Your task to perform on an android device: open a bookmark in the chrome app Image 0: 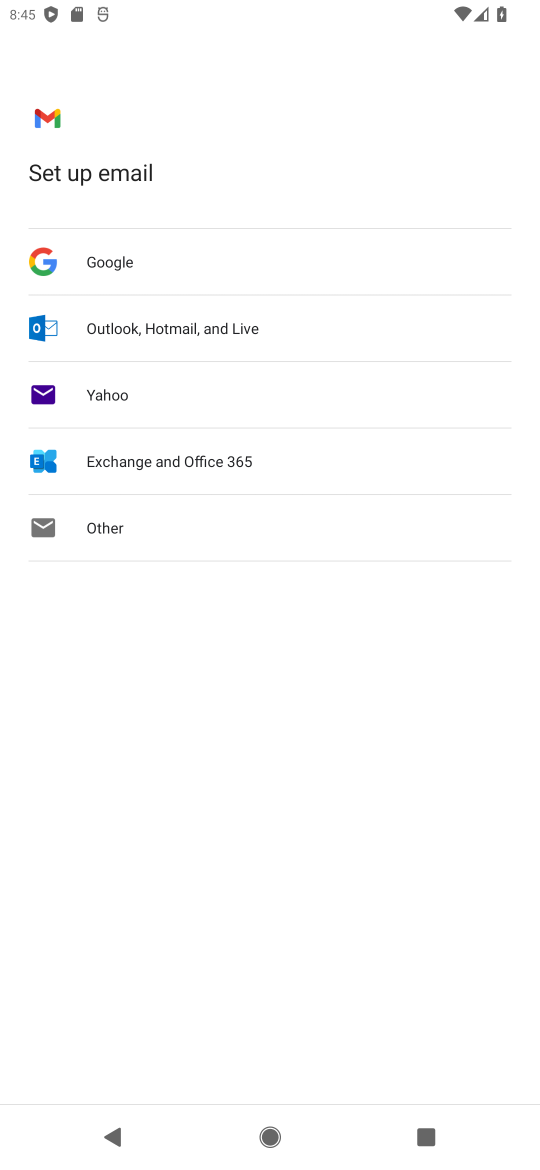
Step 0: press home button
Your task to perform on an android device: open a bookmark in the chrome app Image 1: 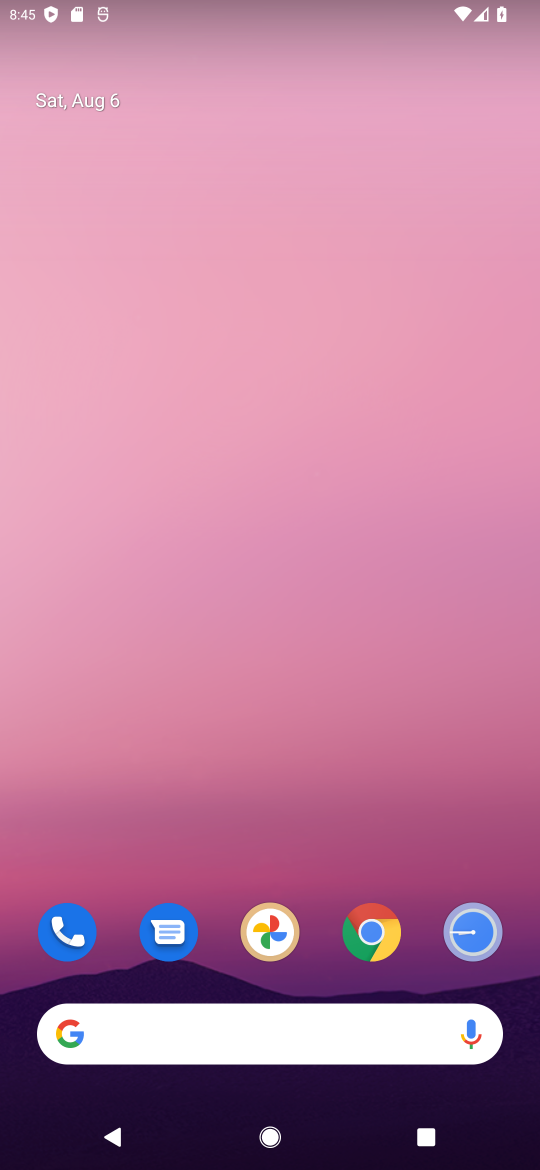
Step 1: click (373, 935)
Your task to perform on an android device: open a bookmark in the chrome app Image 2: 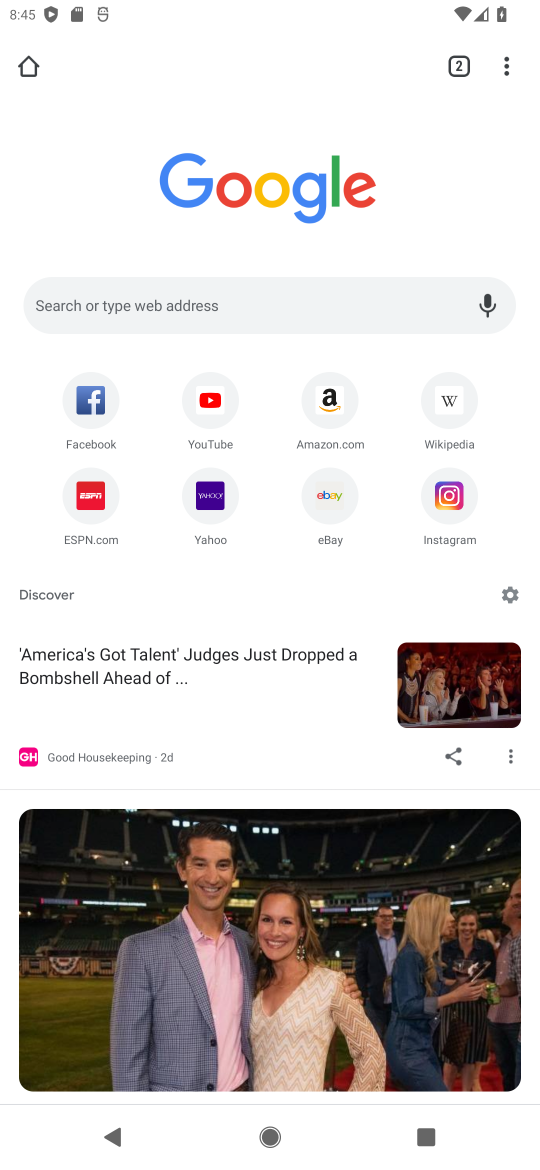
Step 2: click (512, 68)
Your task to perform on an android device: open a bookmark in the chrome app Image 3: 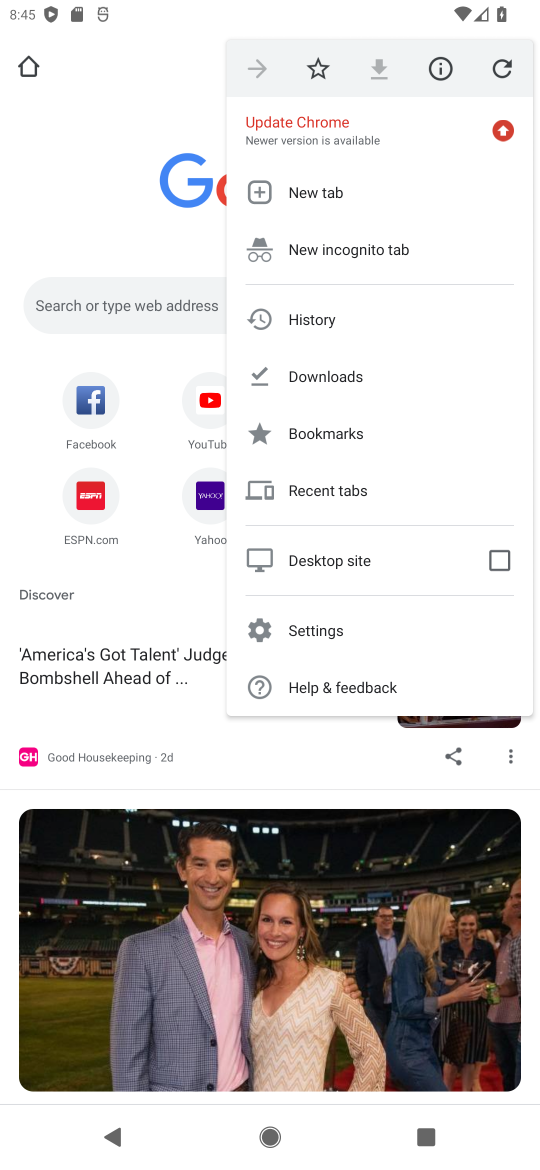
Step 3: click (317, 434)
Your task to perform on an android device: open a bookmark in the chrome app Image 4: 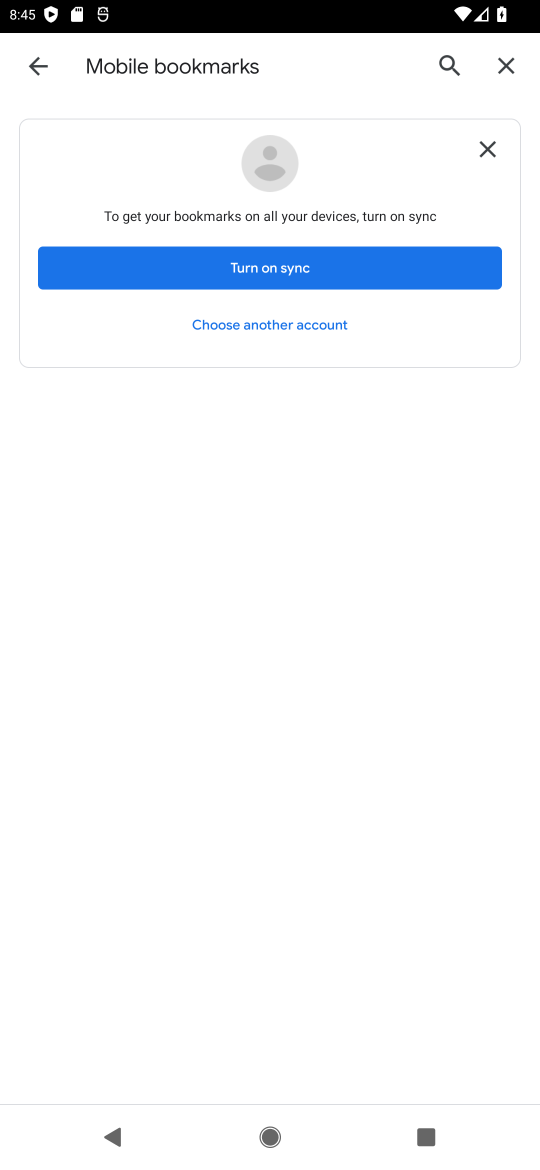
Step 4: task complete